Your task to perform on an android device: Is it going to rain today? Image 0: 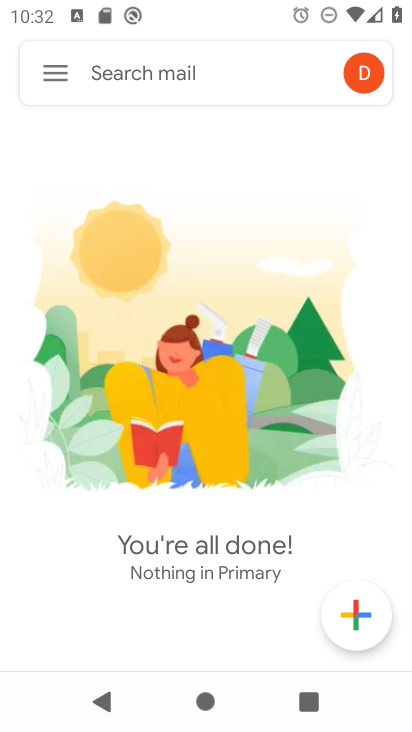
Step 0: press home button
Your task to perform on an android device: Is it going to rain today? Image 1: 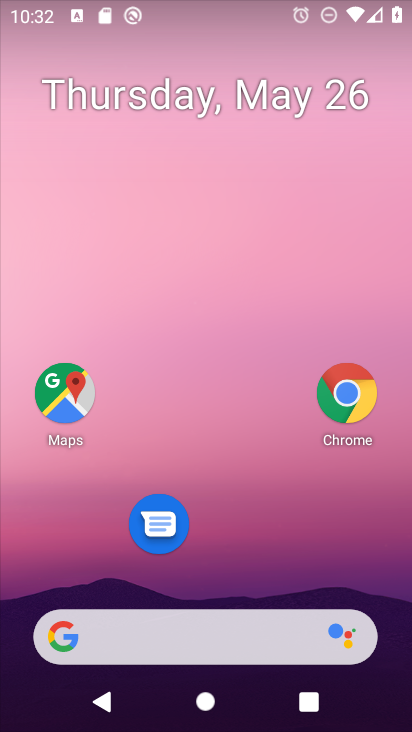
Step 1: click (193, 642)
Your task to perform on an android device: Is it going to rain today? Image 2: 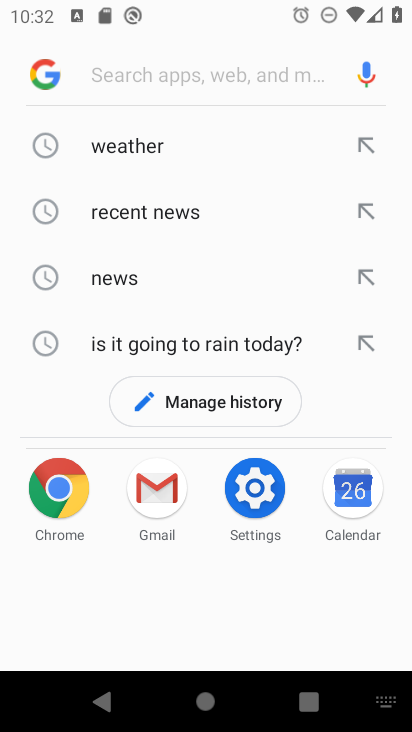
Step 2: click (57, 140)
Your task to perform on an android device: Is it going to rain today? Image 3: 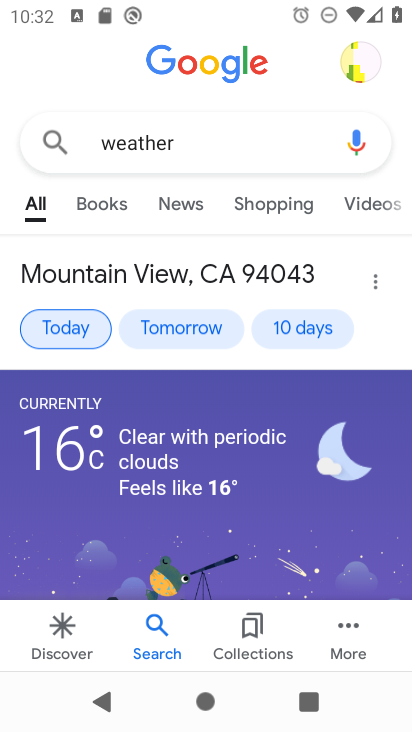
Step 3: click (93, 318)
Your task to perform on an android device: Is it going to rain today? Image 4: 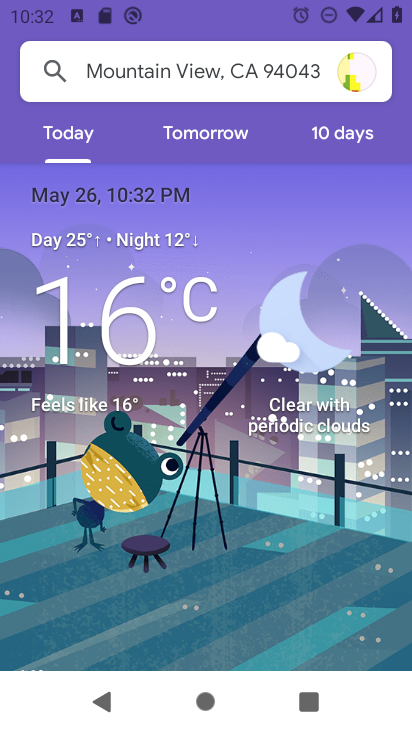
Step 4: task complete